Your task to perform on an android device: allow notifications from all sites in the chrome app Image 0: 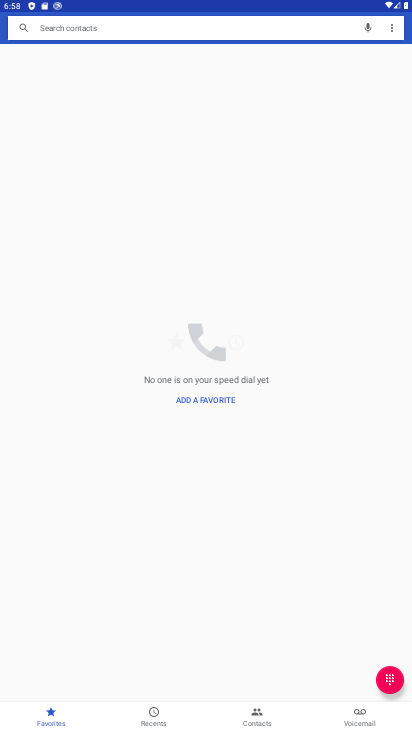
Step 0: press home button
Your task to perform on an android device: allow notifications from all sites in the chrome app Image 1: 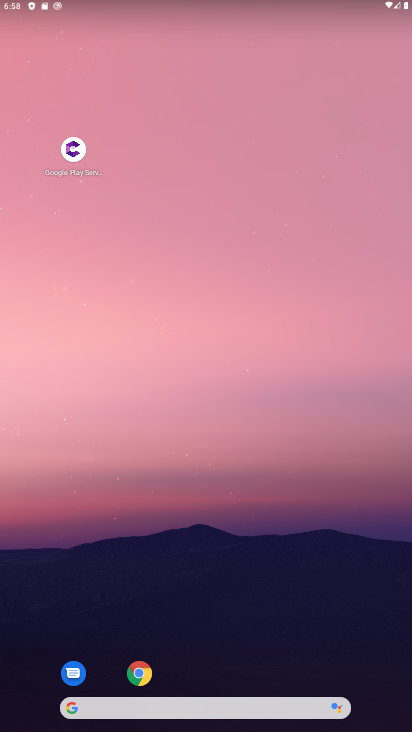
Step 1: click (131, 674)
Your task to perform on an android device: allow notifications from all sites in the chrome app Image 2: 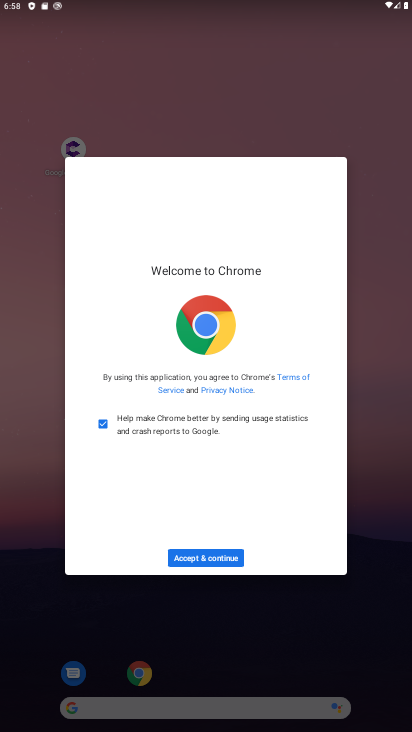
Step 2: click (196, 558)
Your task to perform on an android device: allow notifications from all sites in the chrome app Image 3: 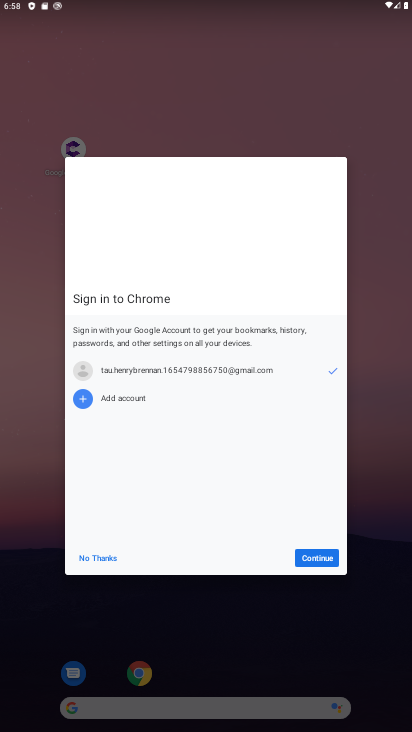
Step 3: click (308, 557)
Your task to perform on an android device: allow notifications from all sites in the chrome app Image 4: 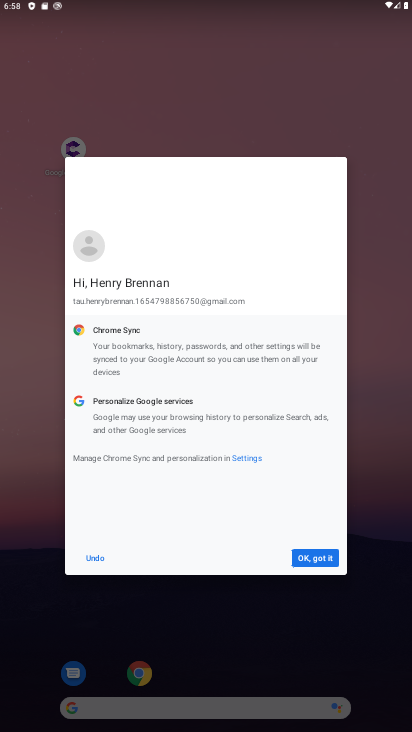
Step 4: click (308, 557)
Your task to perform on an android device: allow notifications from all sites in the chrome app Image 5: 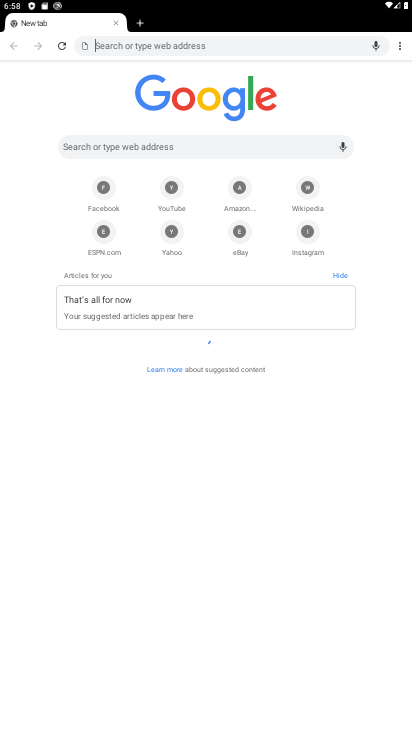
Step 5: click (399, 48)
Your task to perform on an android device: allow notifications from all sites in the chrome app Image 6: 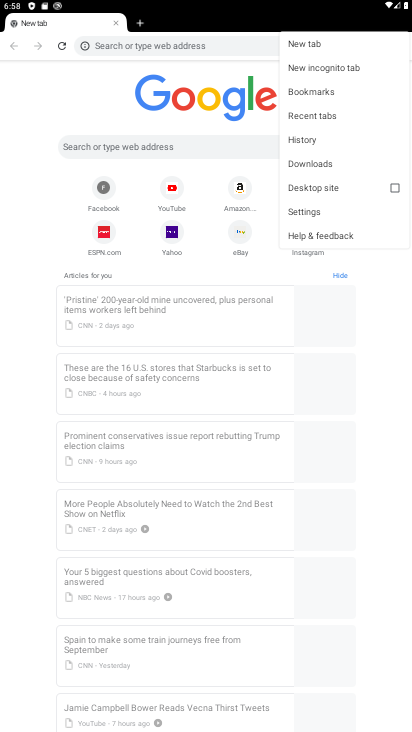
Step 6: click (305, 211)
Your task to perform on an android device: allow notifications from all sites in the chrome app Image 7: 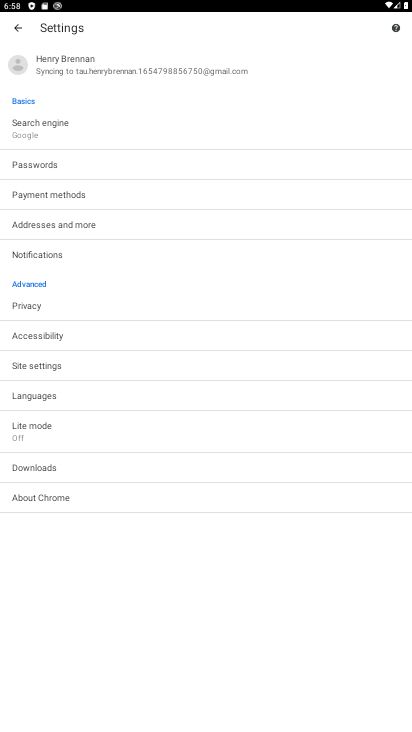
Step 7: click (45, 362)
Your task to perform on an android device: allow notifications from all sites in the chrome app Image 8: 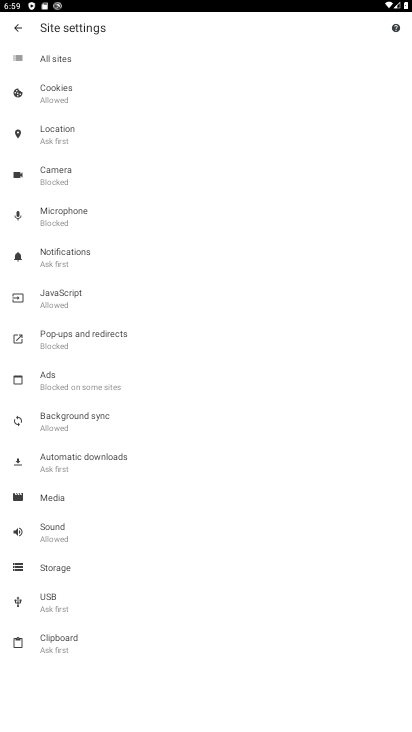
Step 8: click (68, 252)
Your task to perform on an android device: allow notifications from all sites in the chrome app Image 9: 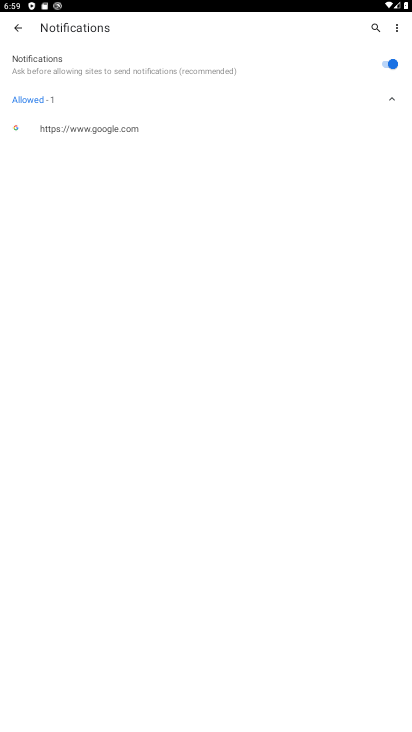
Step 9: click (388, 59)
Your task to perform on an android device: allow notifications from all sites in the chrome app Image 10: 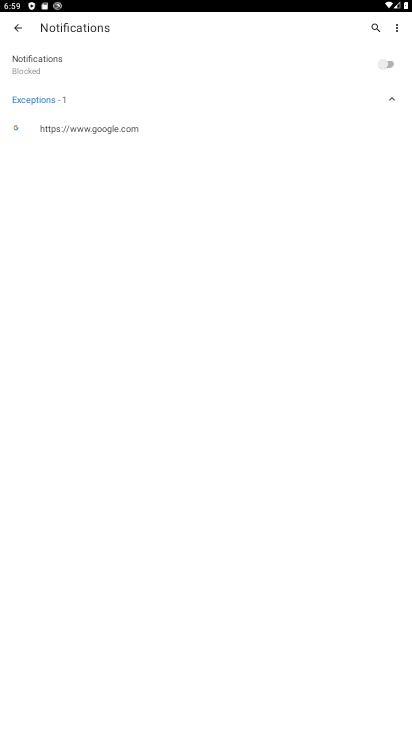
Step 10: click (388, 59)
Your task to perform on an android device: allow notifications from all sites in the chrome app Image 11: 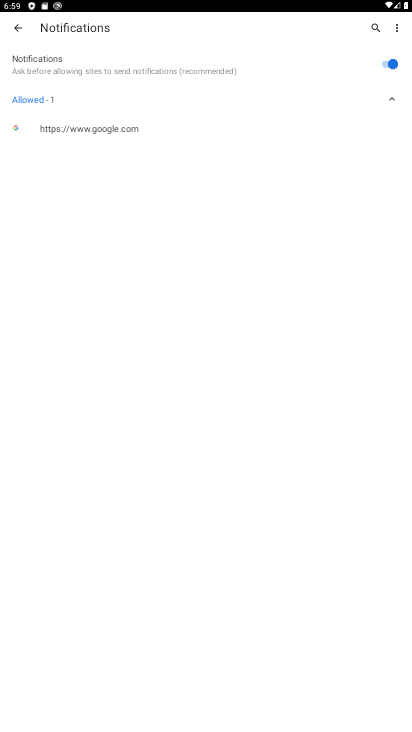
Step 11: task complete